Your task to perform on an android device: Toggle the flashlight Image 0: 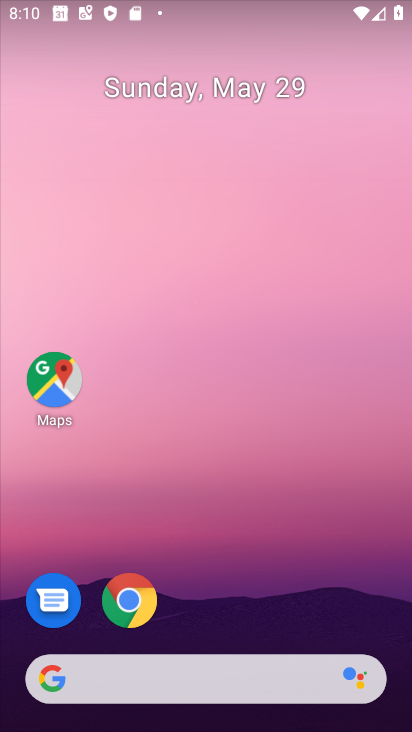
Step 0: drag from (257, 547) to (257, 212)
Your task to perform on an android device: Toggle the flashlight Image 1: 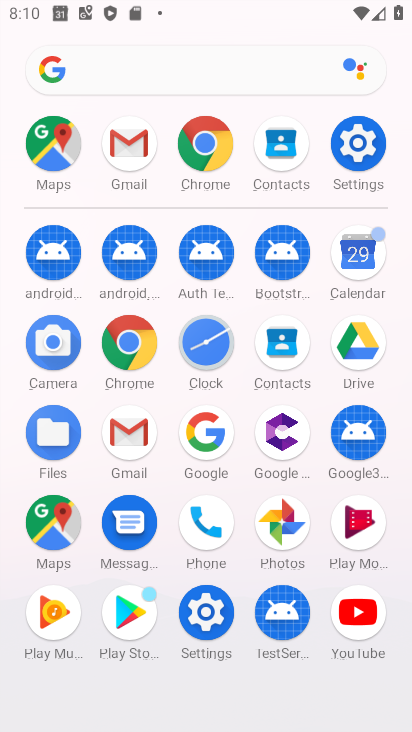
Step 1: click (388, 124)
Your task to perform on an android device: Toggle the flashlight Image 2: 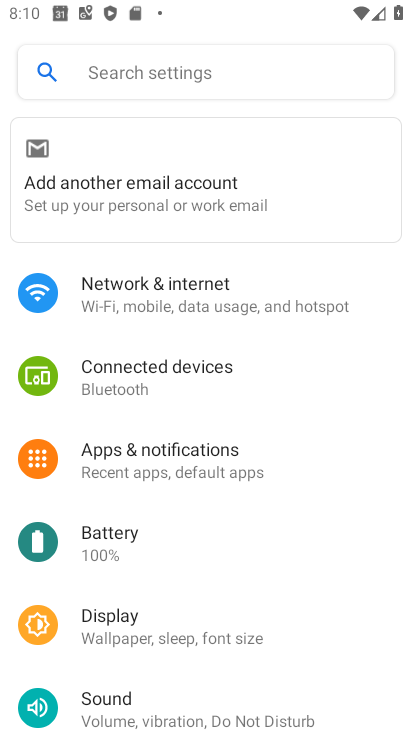
Step 2: click (191, 78)
Your task to perform on an android device: Toggle the flashlight Image 3: 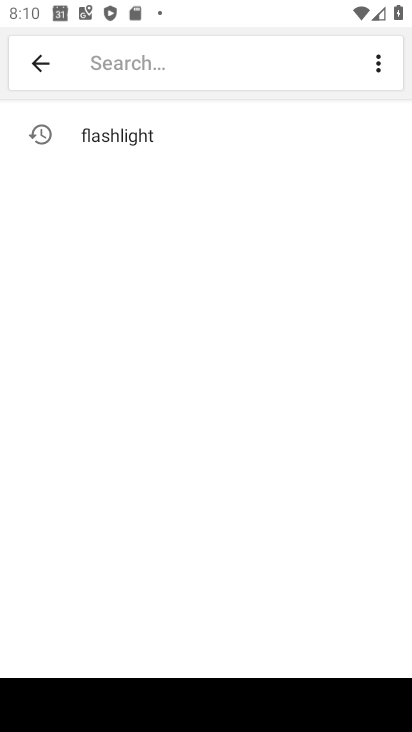
Step 3: type "flash"
Your task to perform on an android device: Toggle the flashlight Image 4: 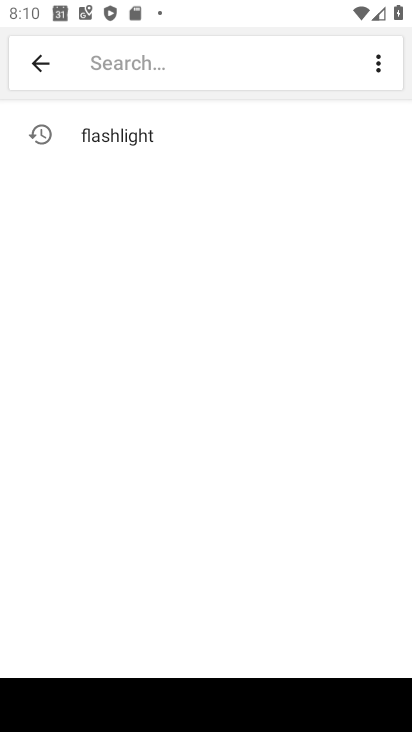
Step 4: click (165, 132)
Your task to perform on an android device: Toggle the flashlight Image 5: 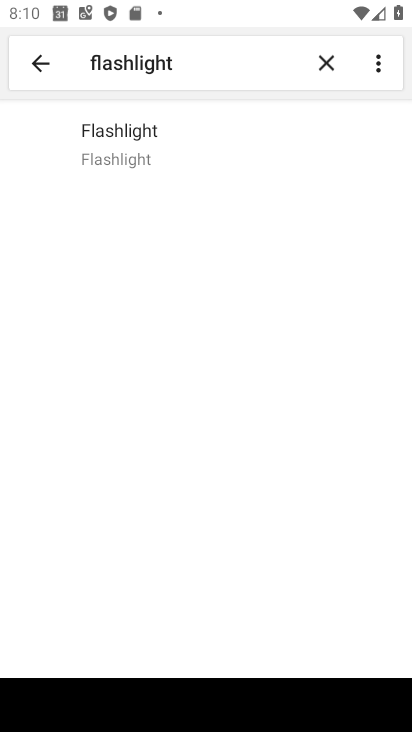
Step 5: task complete